Your task to perform on an android device: Go to display settings Image 0: 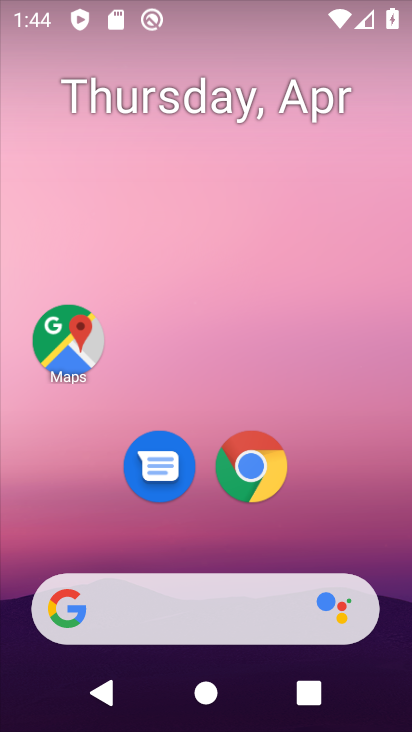
Step 0: drag from (320, 451) to (272, 22)
Your task to perform on an android device: Go to display settings Image 1: 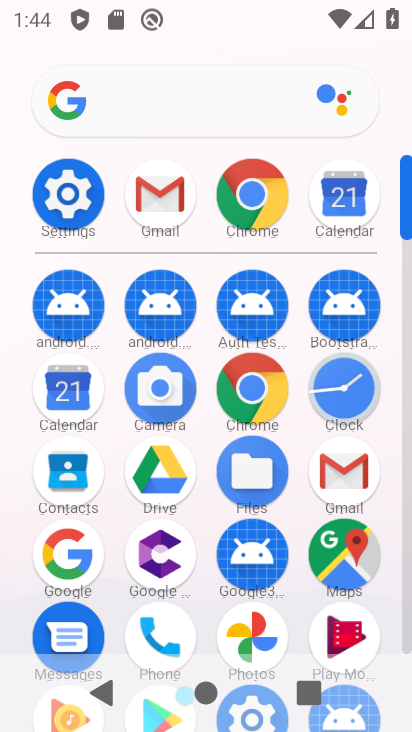
Step 1: drag from (14, 569) to (5, 327)
Your task to perform on an android device: Go to display settings Image 2: 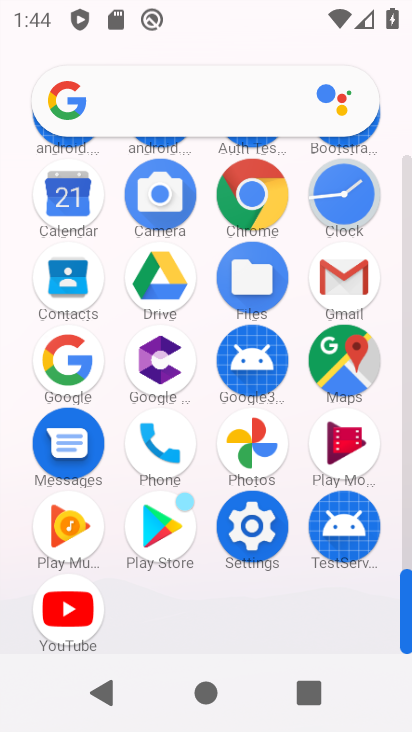
Step 2: click (245, 525)
Your task to perform on an android device: Go to display settings Image 3: 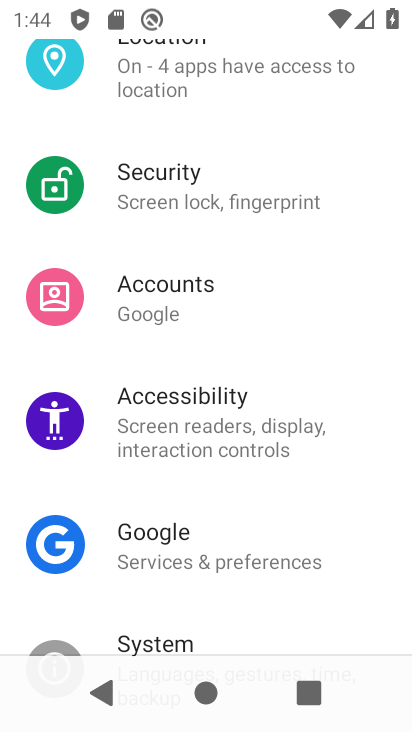
Step 3: drag from (293, 531) to (297, 125)
Your task to perform on an android device: Go to display settings Image 4: 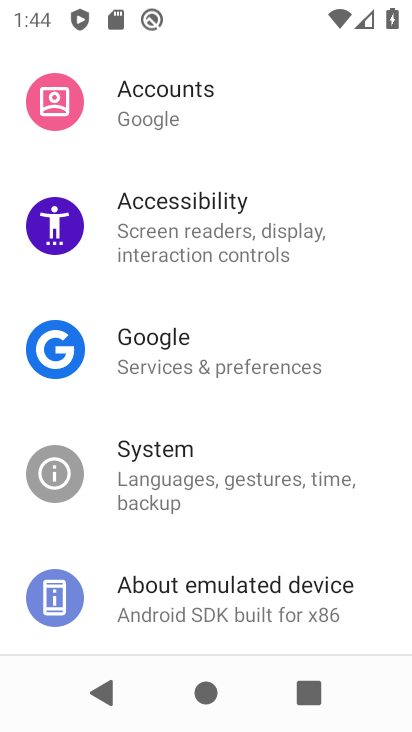
Step 4: drag from (259, 426) to (263, 153)
Your task to perform on an android device: Go to display settings Image 5: 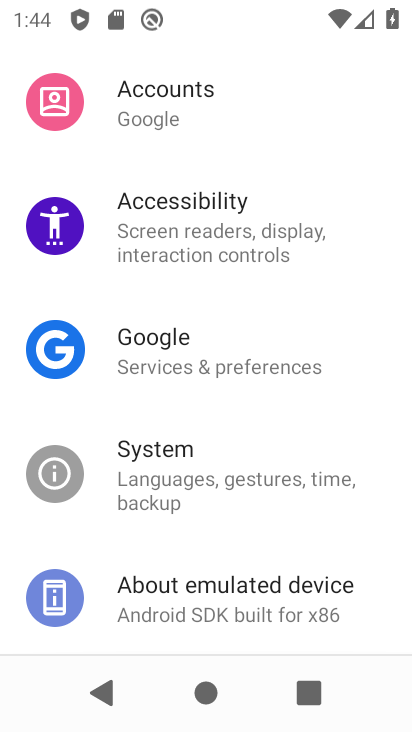
Step 5: drag from (263, 157) to (270, 469)
Your task to perform on an android device: Go to display settings Image 6: 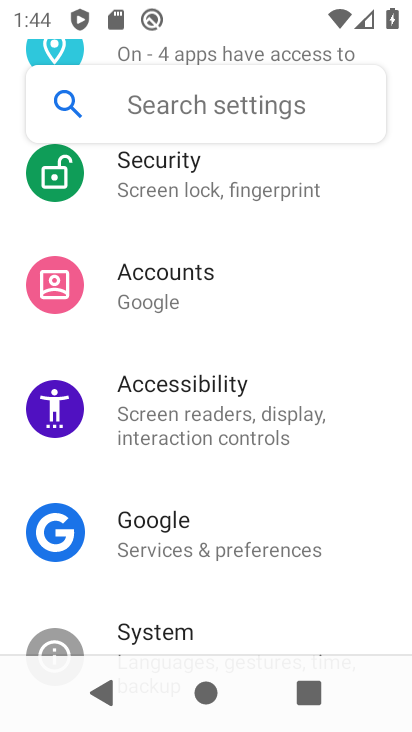
Step 6: drag from (271, 199) to (266, 469)
Your task to perform on an android device: Go to display settings Image 7: 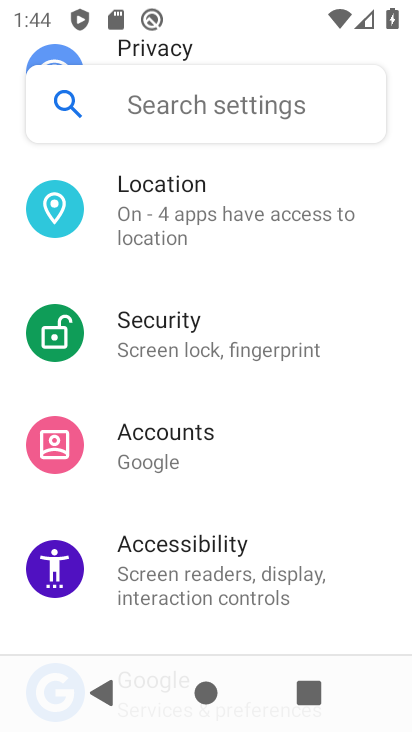
Step 7: drag from (284, 273) to (280, 468)
Your task to perform on an android device: Go to display settings Image 8: 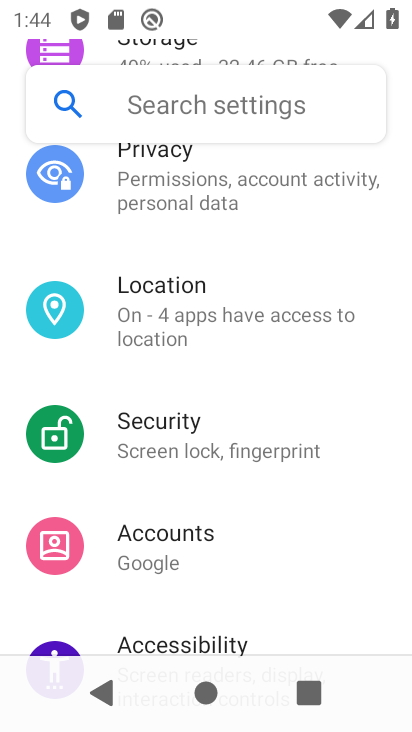
Step 8: drag from (276, 239) to (264, 478)
Your task to perform on an android device: Go to display settings Image 9: 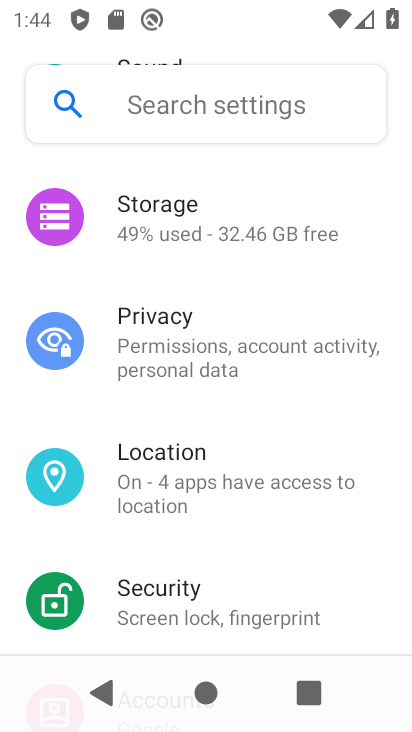
Step 9: drag from (275, 263) to (276, 470)
Your task to perform on an android device: Go to display settings Image 10: 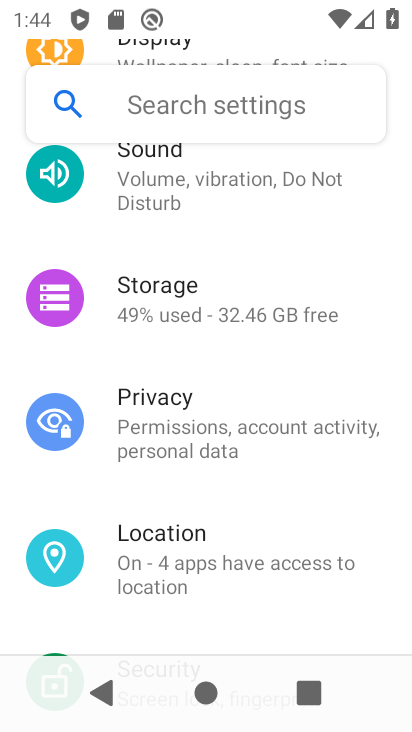
Step 10: drag from (265, 258) to (262, 464)
Your task to perform on an android device: Go to display settings Image 11: 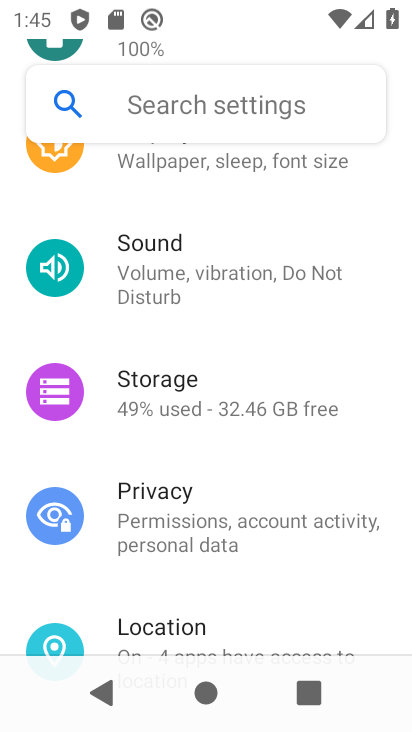
Step 11: drag from (286, 233) to (289, 470)
Your task to perform on an android device: Go to display settings Image 12: 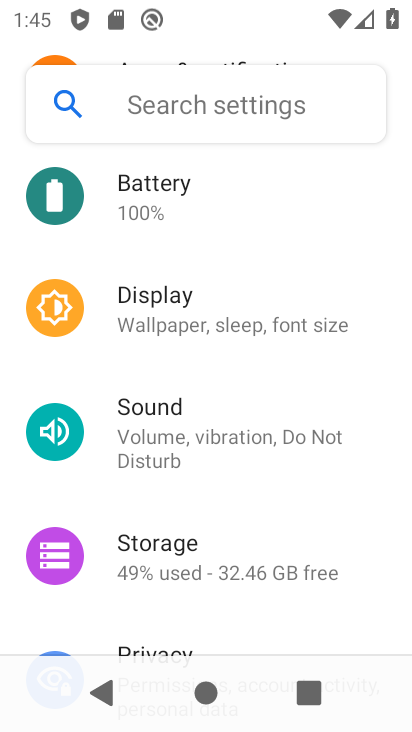
Step 12: click (238, 331)
Your task to perform on an android device: Go to display settings Image 13: 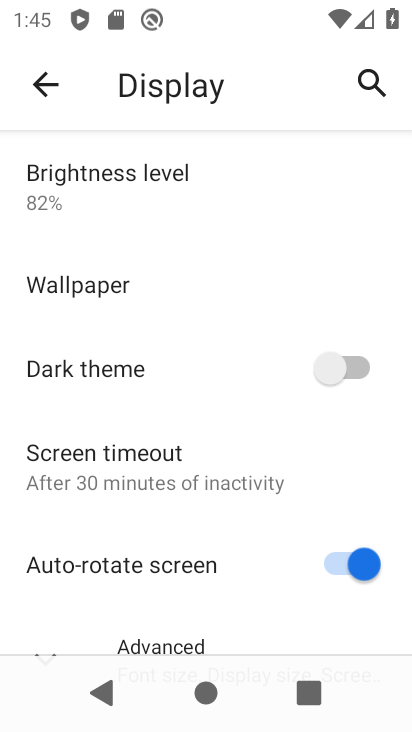
Step 13: task complete